Your task to perform on an android device: Open the calendar app, open the side menu, and click the "Day" option Image 0: 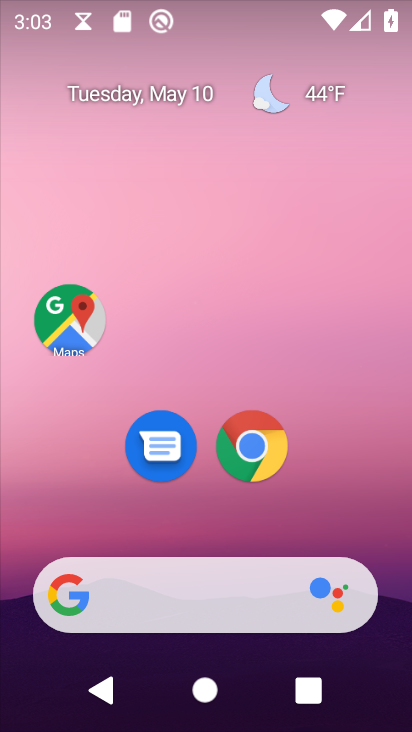
Step 0: drag from (368, 425) to (356, 67)
Your task to perform on an android device: Open the calendar app, open the side menu, and click the "Day" option Image 1: 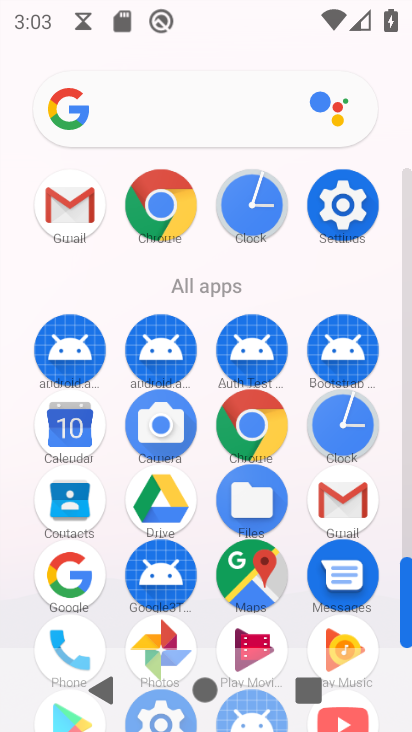
Step 1: click (56, 430)
Your task to perform on an android device: Open the calendar app, open the side menu, and click the "Day" option Image 2: 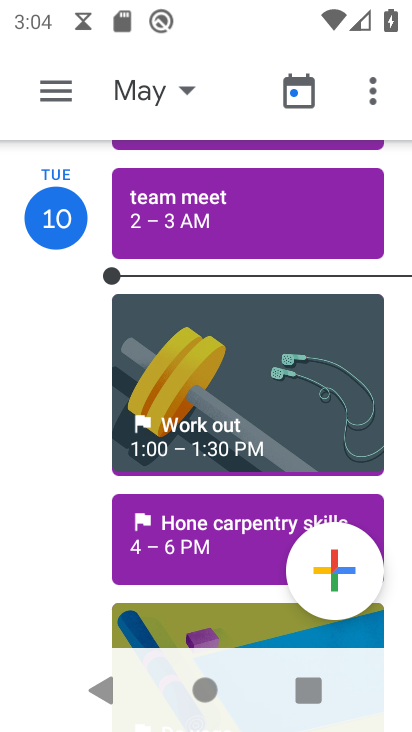
Step 2: click (70, 93)
Your task to perform on an android device: Open the calendar app, open the side menu, and click the "Day" option Image 3: 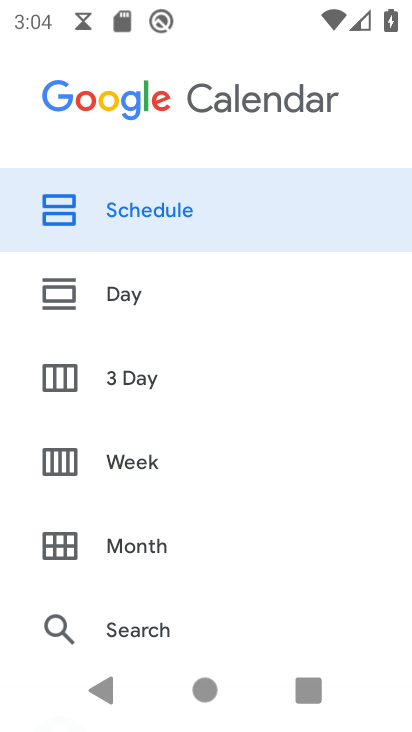
Step 3: click (124, 301)
Your task to perform on an android device: Open the calendar app, open the side menu, and click the "Day" option Image 4: 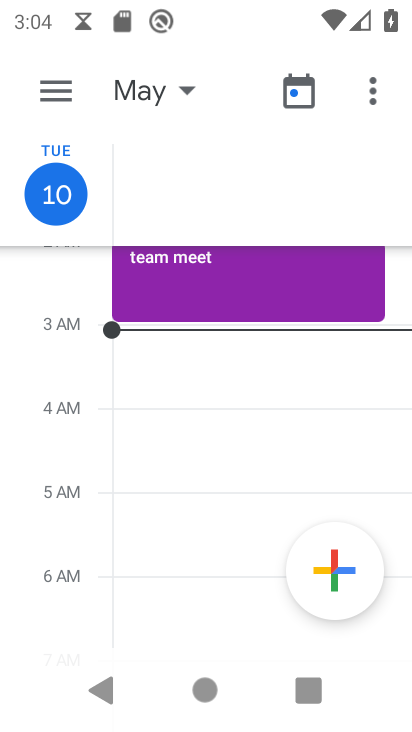
Step 4: task complete